Your task to perform on an android device: What's on my calendar today? Image 0: 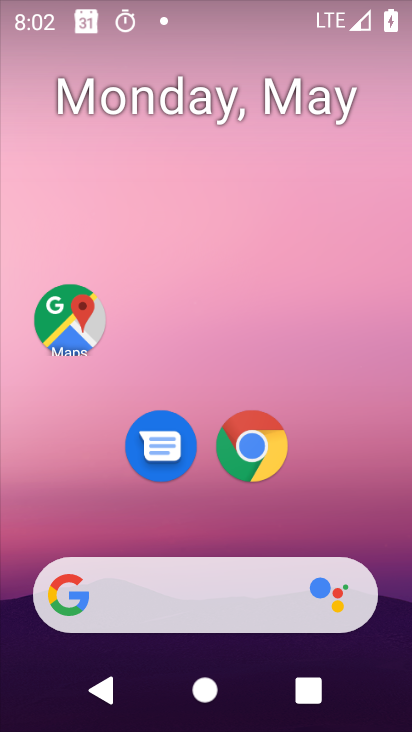
Step 0: drag from (380, 541) to (308, 1)
Your task to perform on an android device: What's on my calendar today? Image 1: 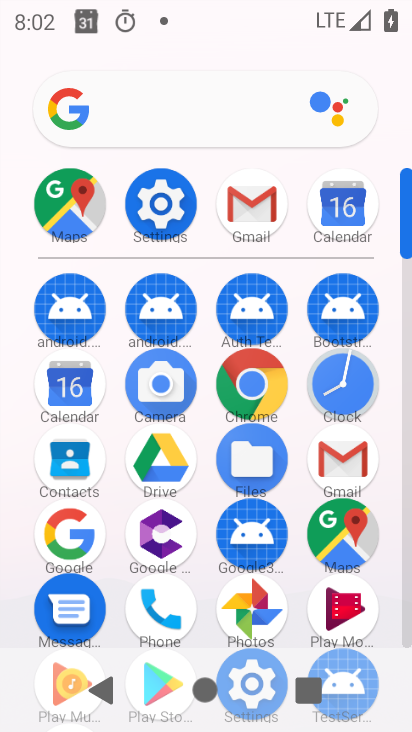
Step 1: click (348, 195)
Your task to perform on an android device: What's on my calendar today? Image 2: 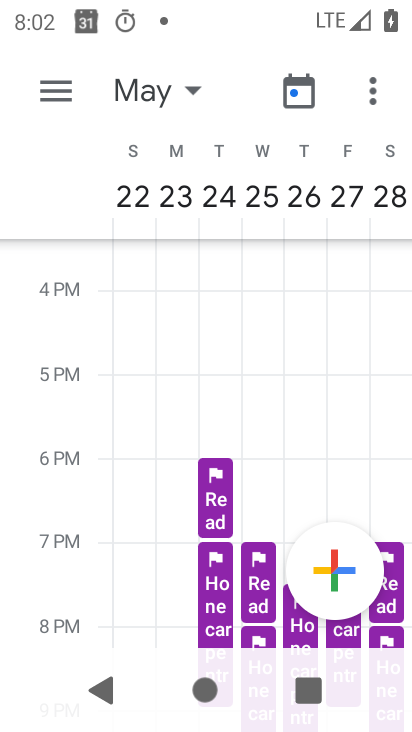
Step 2: click (54, 89)
Your task to perform on an android device: What's on my calendar today? Image 3: 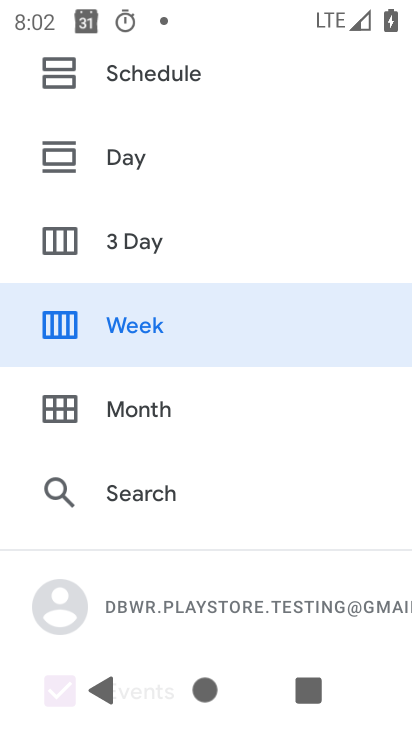
Step 3: click (156, 76)
Your task to perform on an android device: What's on my calendar today? Image 4: 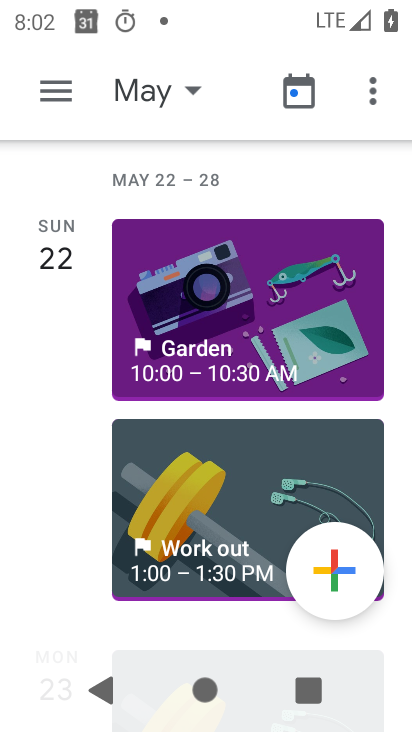
Step 4: click (191, 86)
Your task to perform on an android device: What's on my calendar today? Image 5: 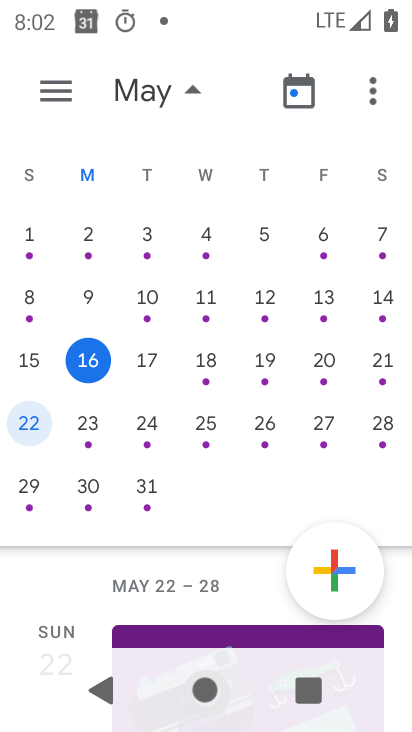
Step 5: click (95, 358)
Your task to perform on an android device: What's on my calendar today? Image 6: 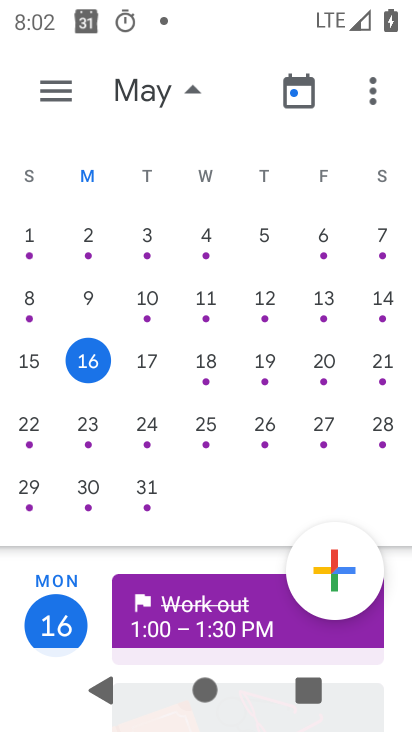
Step 6: drag from (162, 594) to (120, 220)
Your task to perform on an android device: What's on my calendar today? Image 7: 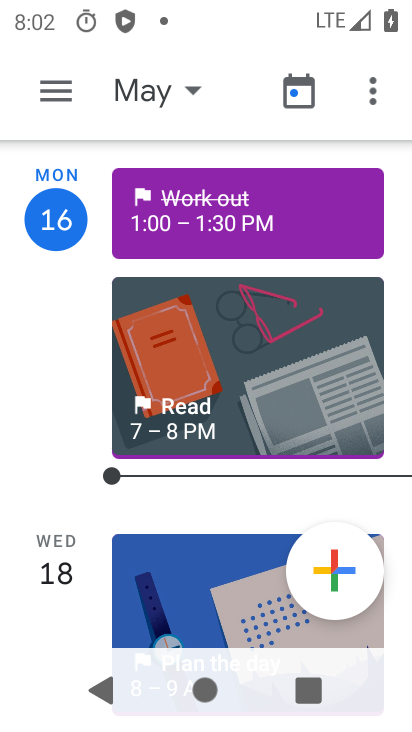
Step 7: click (193, 343)
Your task to perform on an android device: What's on my calendar today? Image 8: 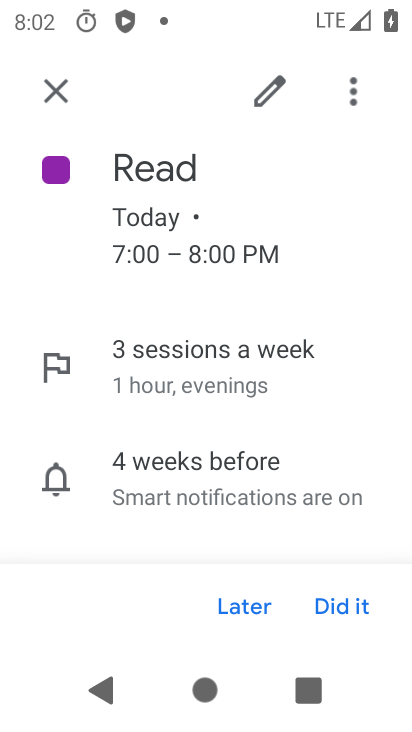
Step 8: click (54, 99)
Your task to perform on an android device: What's on my calendar today? Image 9: 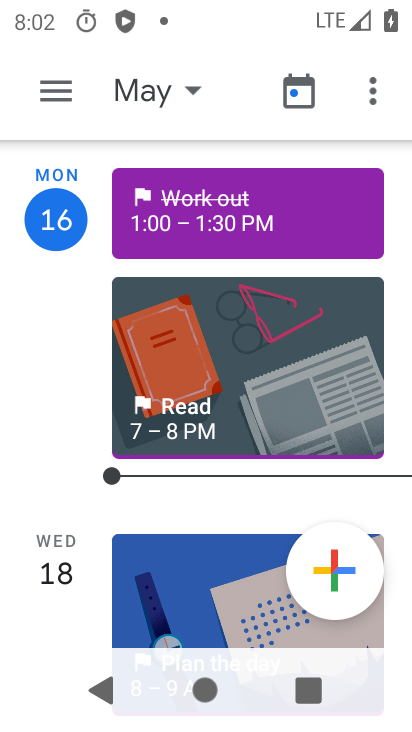
Step 9: drag from (214, 417) to (229, 533)
Your task to perform on an android device: What's on my calendar today? Image 10: 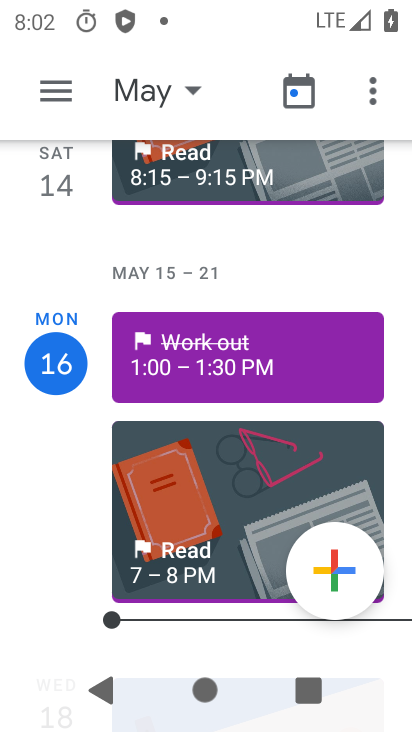
Step 10: click (202, 377)
Your task to perform on an android device: What's on my calendar today? Image 11: 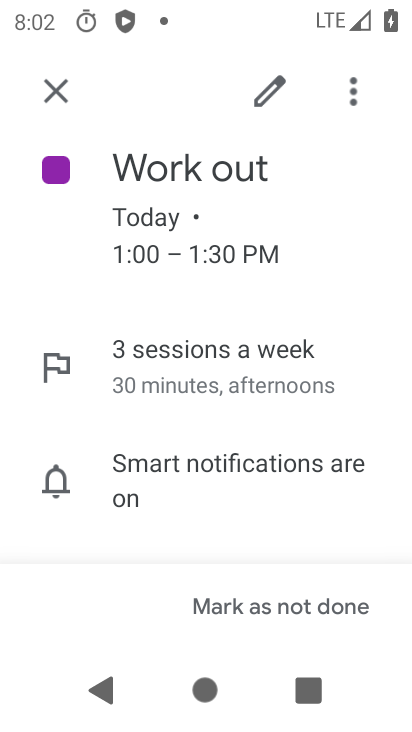
Step 11: task complete